Your task to perform on an android device: turn off translation in the chrome app Image 0: 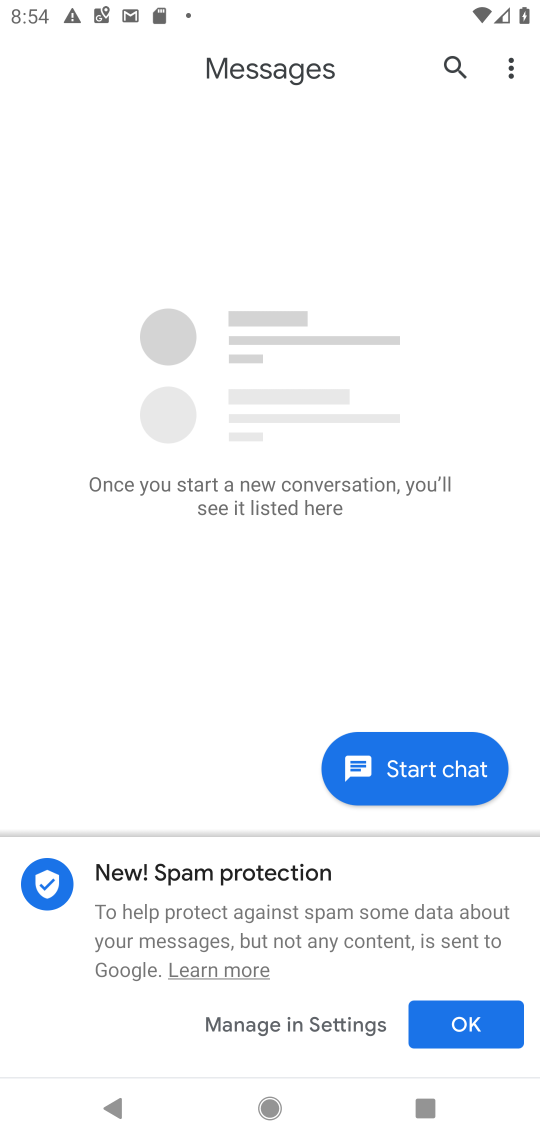
Step 0: press home button
Your task to perform on an android device: turn off translation in the chrome app Image 1: 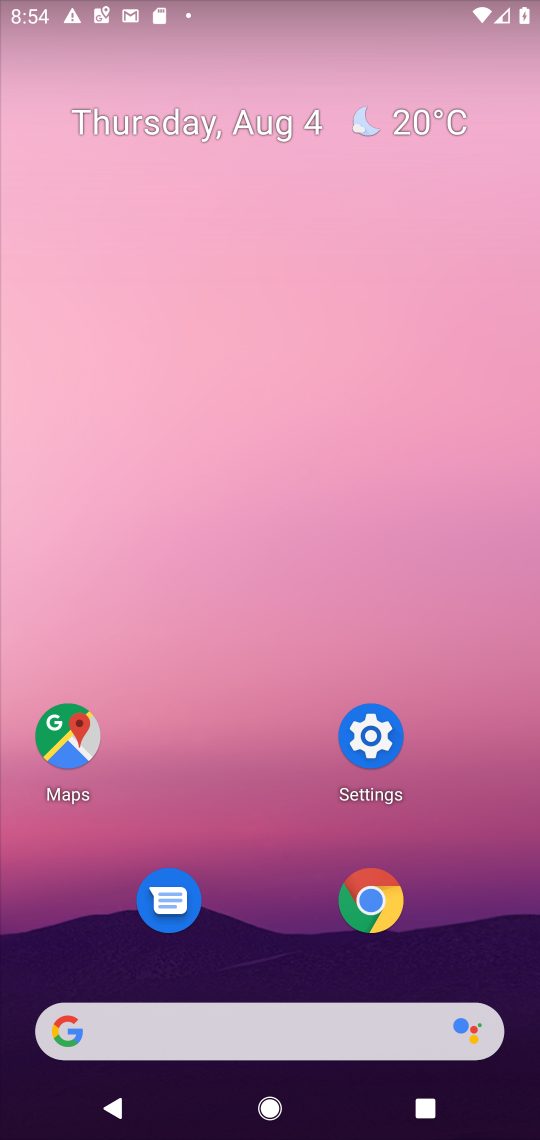
Step 1: click (373, 902)
Your task to perform on an android device: turn off translation in the chrome app Image 2: 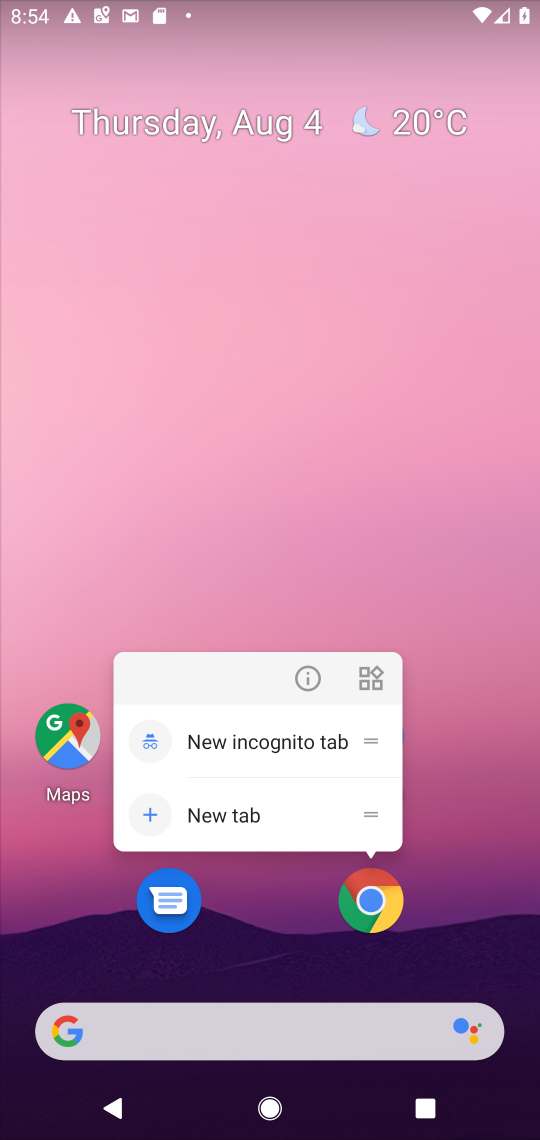
Step 2: click (373, 901)
Your task to perform on an android device: turn off translation in the chrome app Image 3: 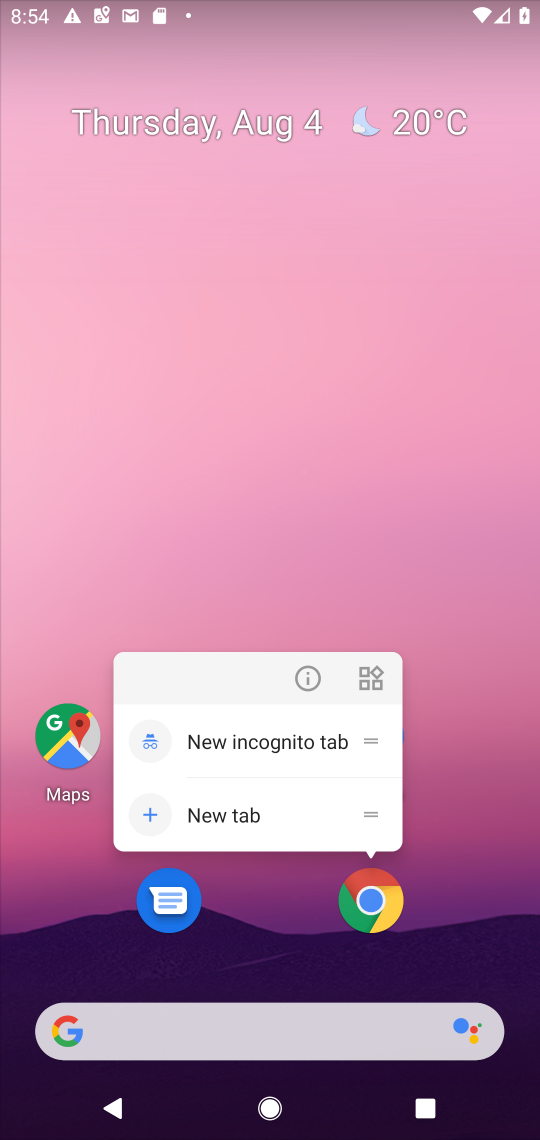
Step 3: click (373, 902)
Your task to perform on an android device: turn off translation in the chrome app Image 4: 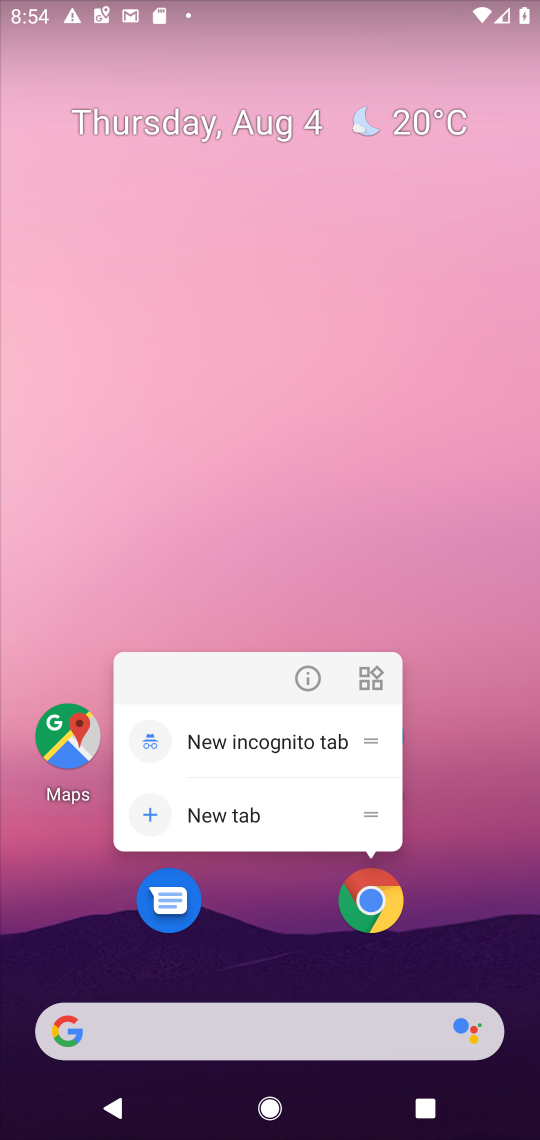
Step 4: click (373, 906)
Your task to perform on an android device: turn off translation in the chrome app Image 5: 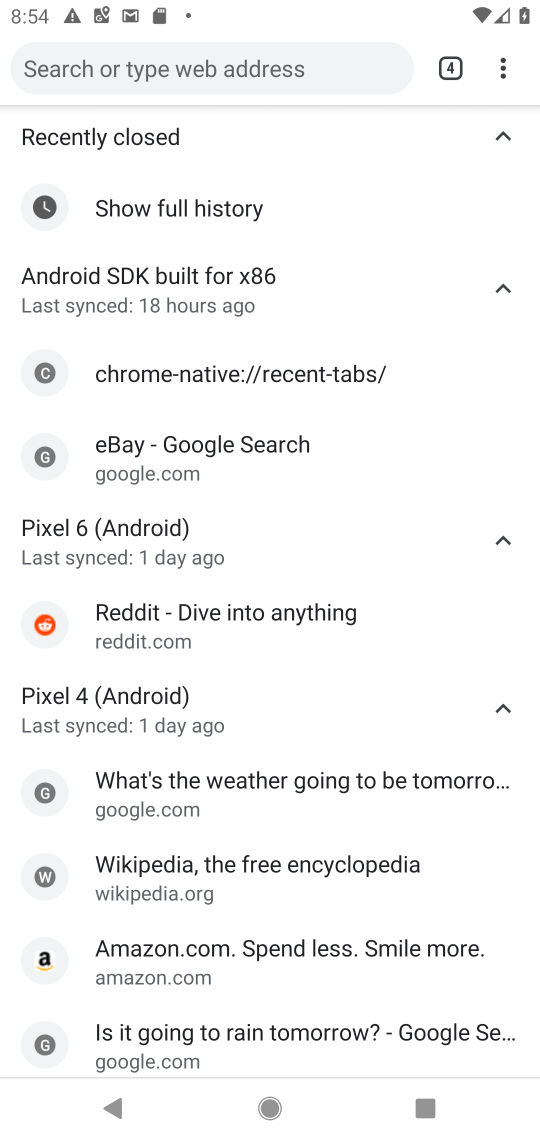
Step 5: drag from (499, 68) to (277, 661)
Your task to perform on an android device: turn off translation in the chrome app Image 6: 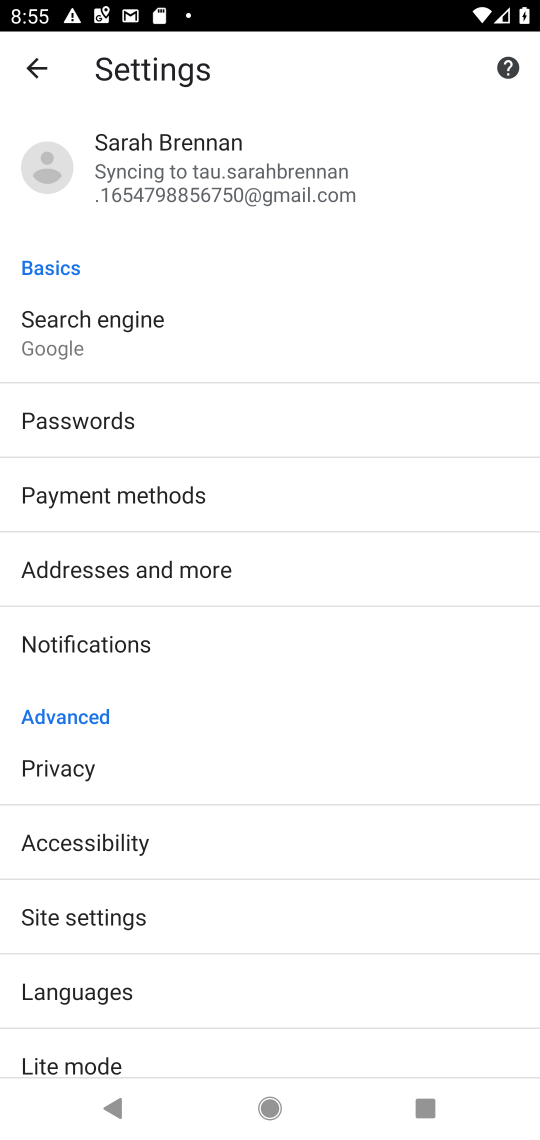
Step 6: drag from (205, 958) to (361, 558)
Your task to perform on an android device: turn off translation in the chrome app Image 7: 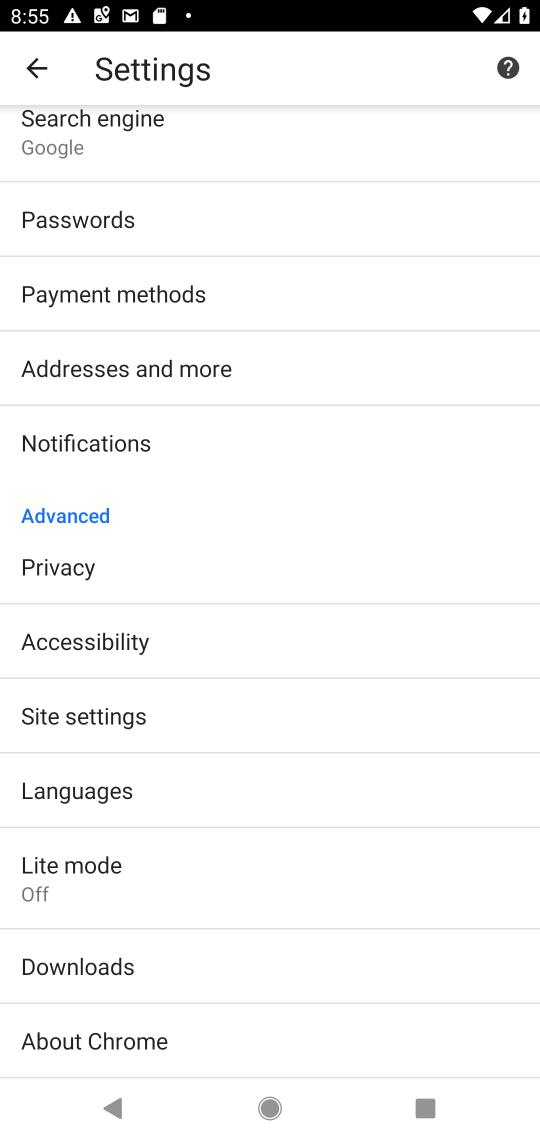
Step 7: click (92, 866)
Your task to perform on an android device: turn off translation in the chrome app Image 8: 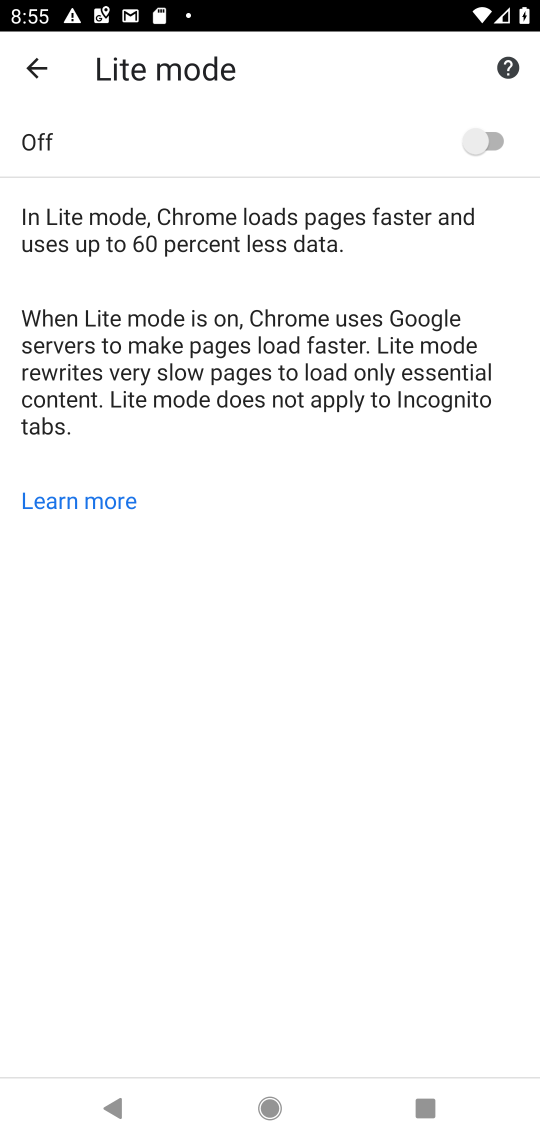
Step 8: task complete